Your task to perform on an android device: What time is it in Berlin? Image 0: 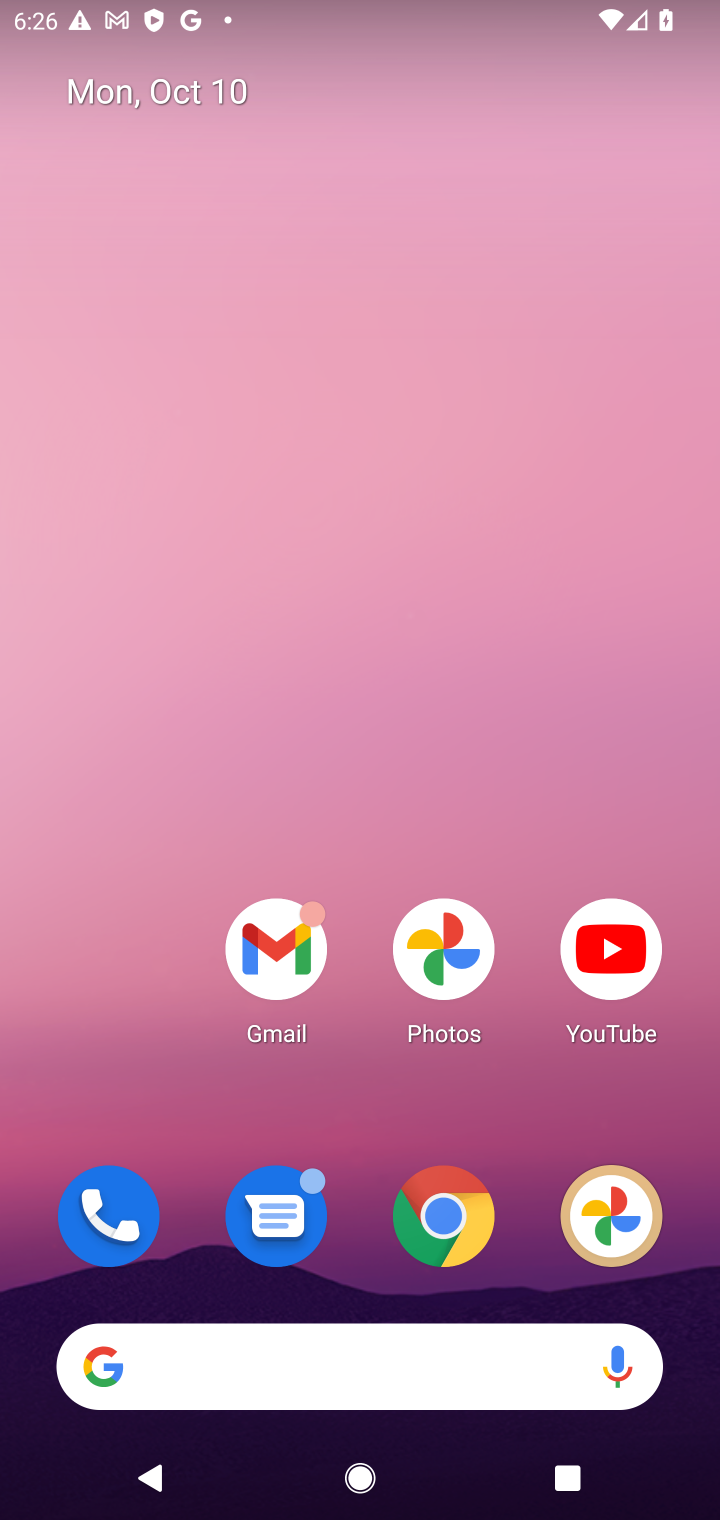
Step 0: press home button
Your task to perform on an android device: What time is it in Berlin? Image 1: 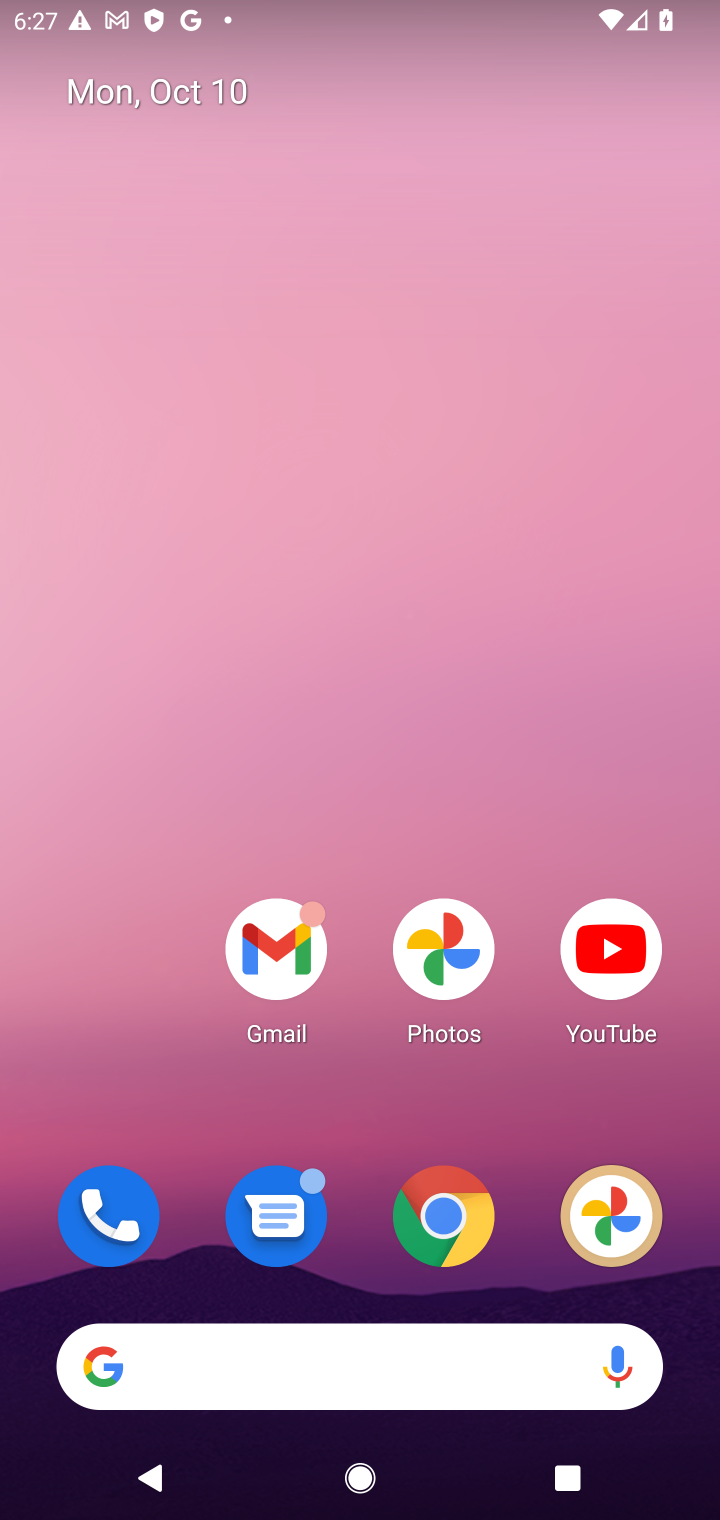
Step 1: drag from (369, 1358) to (366, 291)
Your task to perform on an android device: What time is it in Berlin? Image 2: 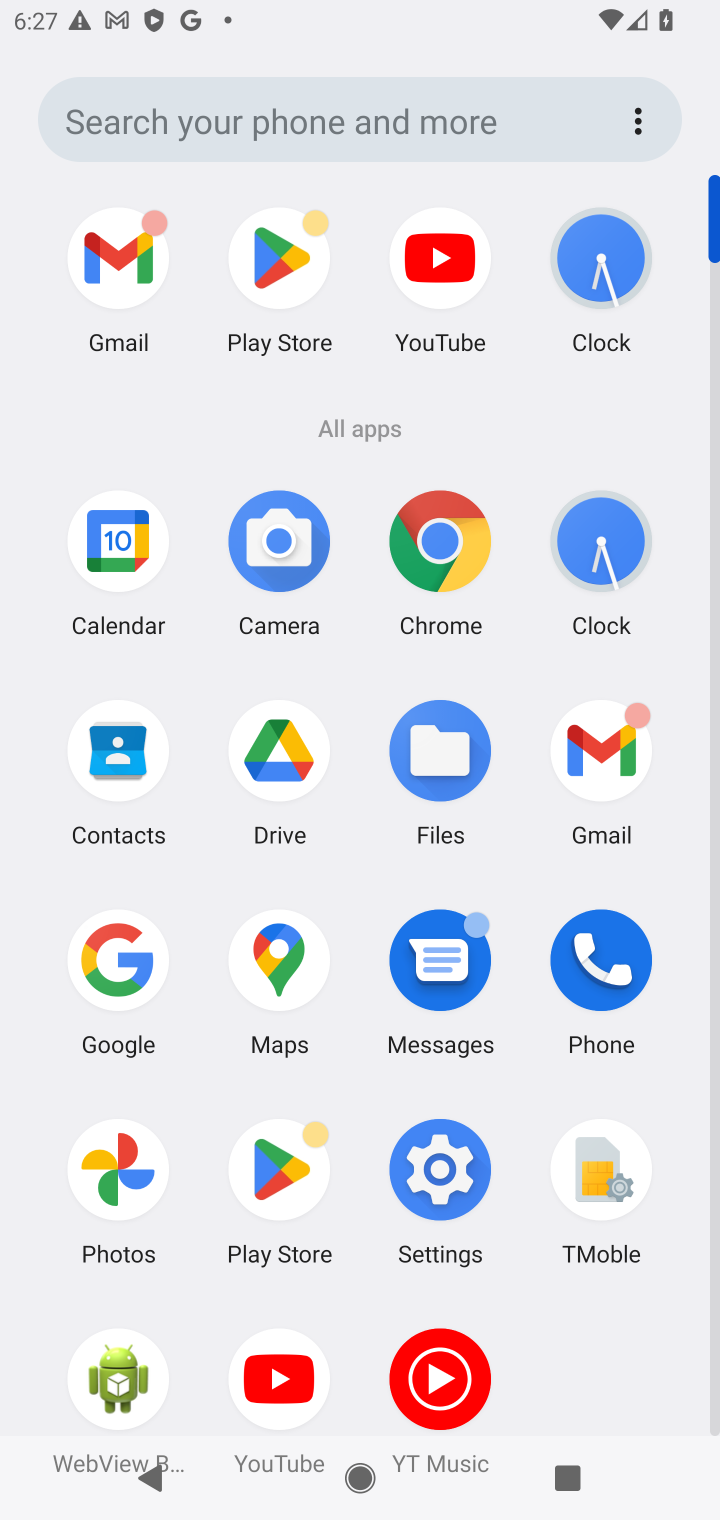
Step 2: click (107, 957)
Your task to perform on an android device: What time is it in Berlin? Image 3: 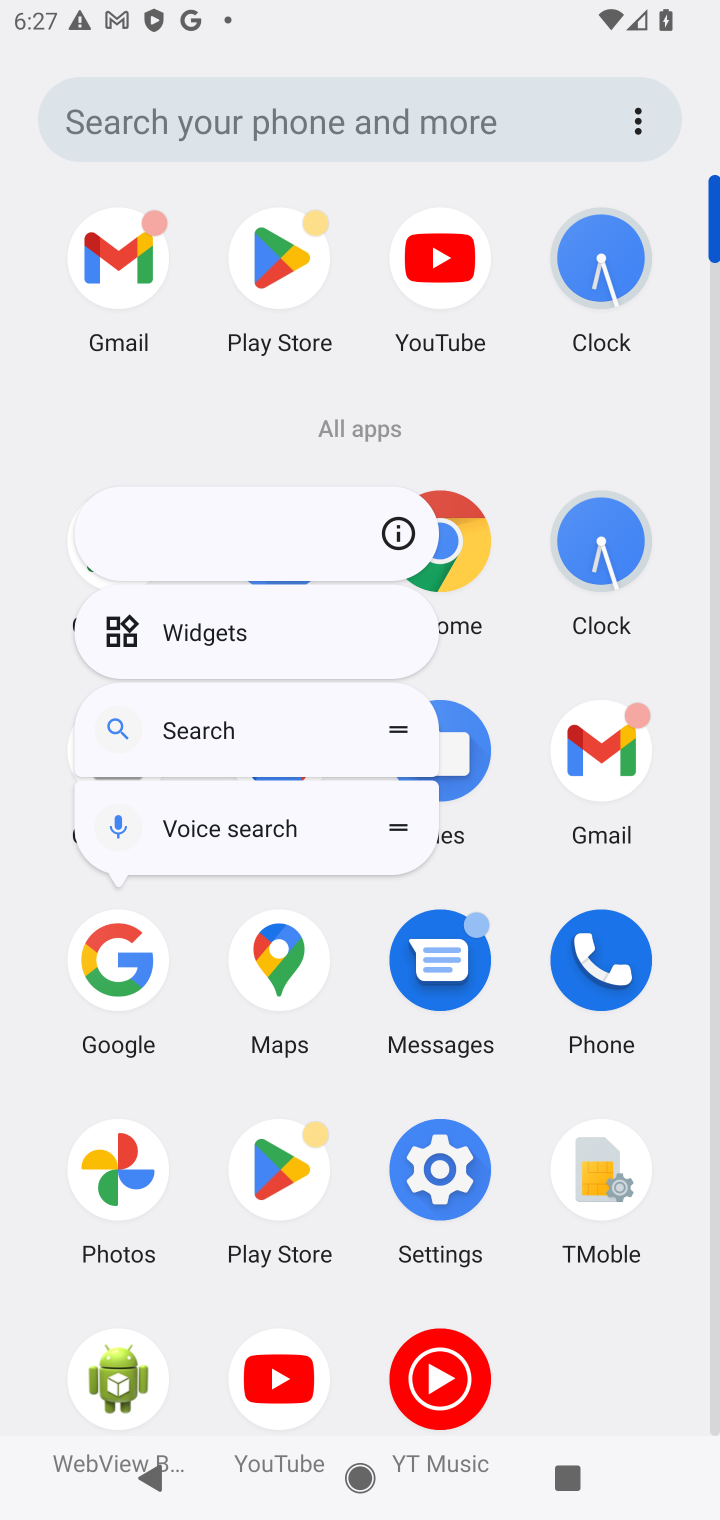
Step 3: click (132, 955)
Your task to perform on an android device: What time is it in Berlin? Image 4: 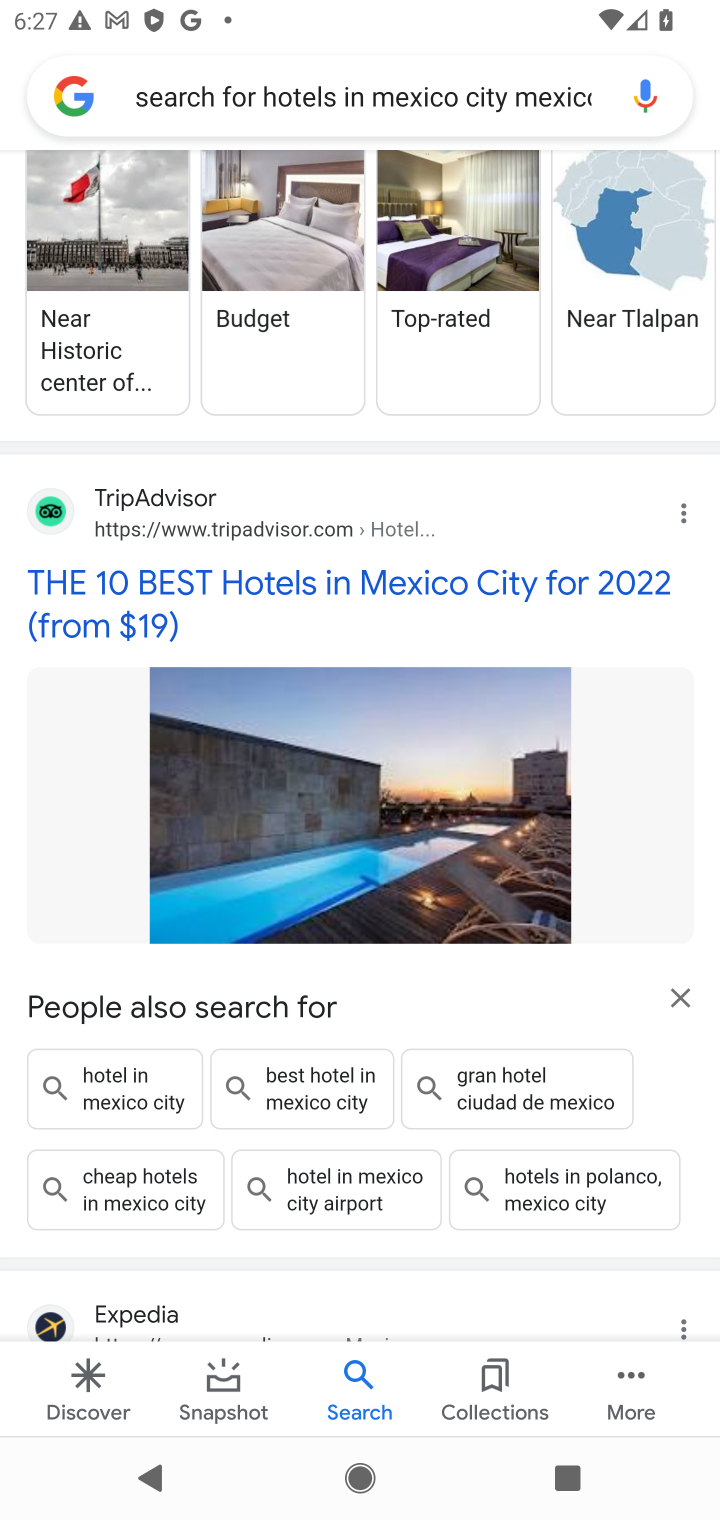
Step 4: click (519, 94)
Your task to perform on an android device: What time is it in Berlin? Image 5: 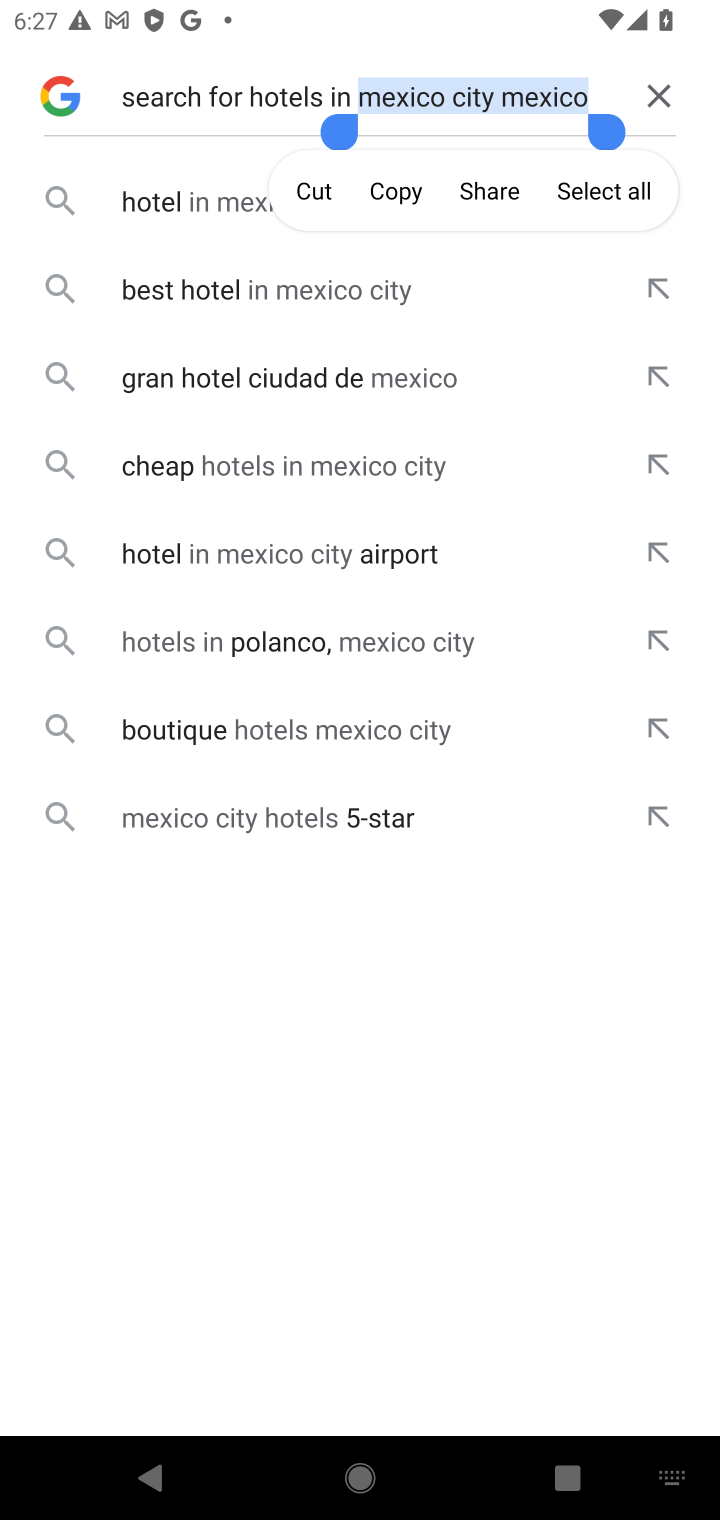
Step 5: click (670, 91)
Your task to perform on an android device: What time is it in Berlin? Image 6: 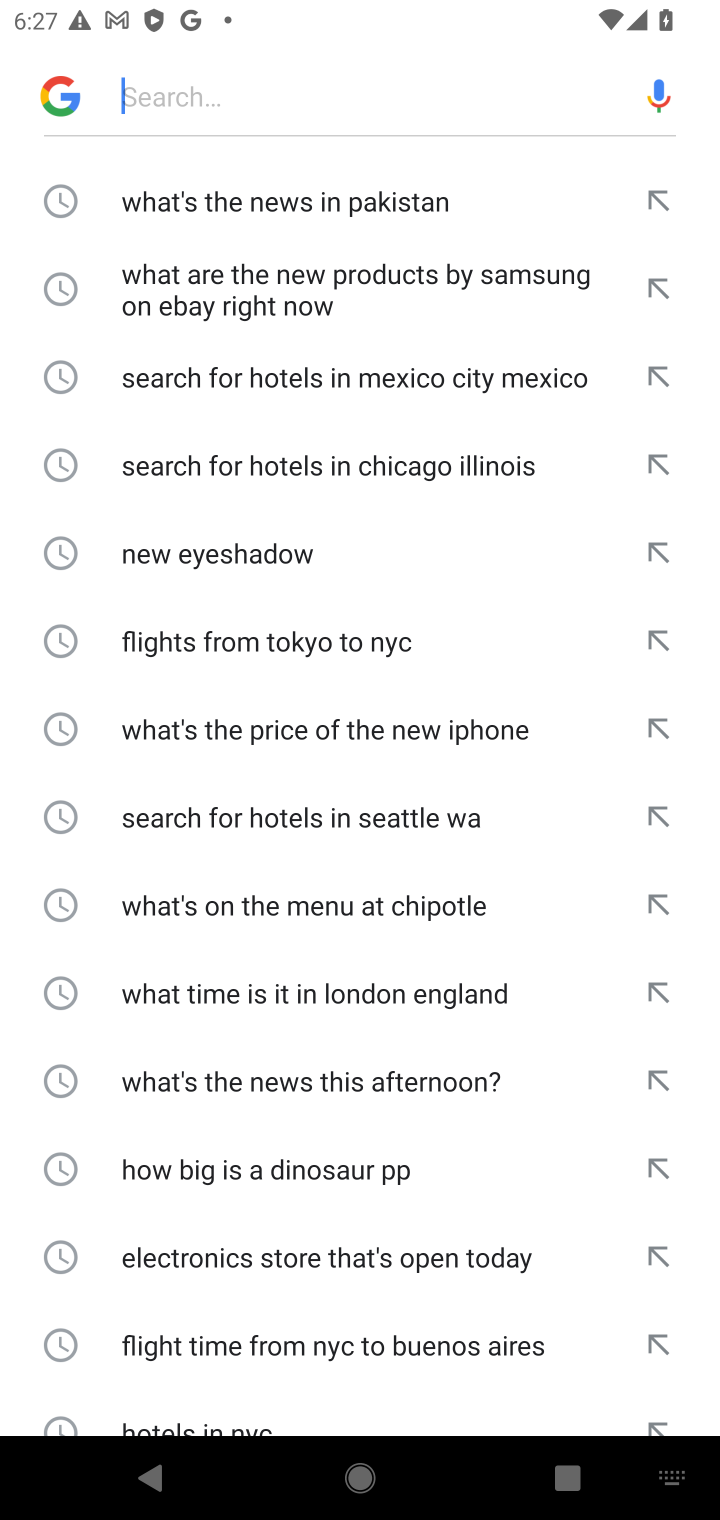
Step 6: type "What time is it in Berlin?"
Your task to perform on an android device: What time is it in Berlin? Image 7: 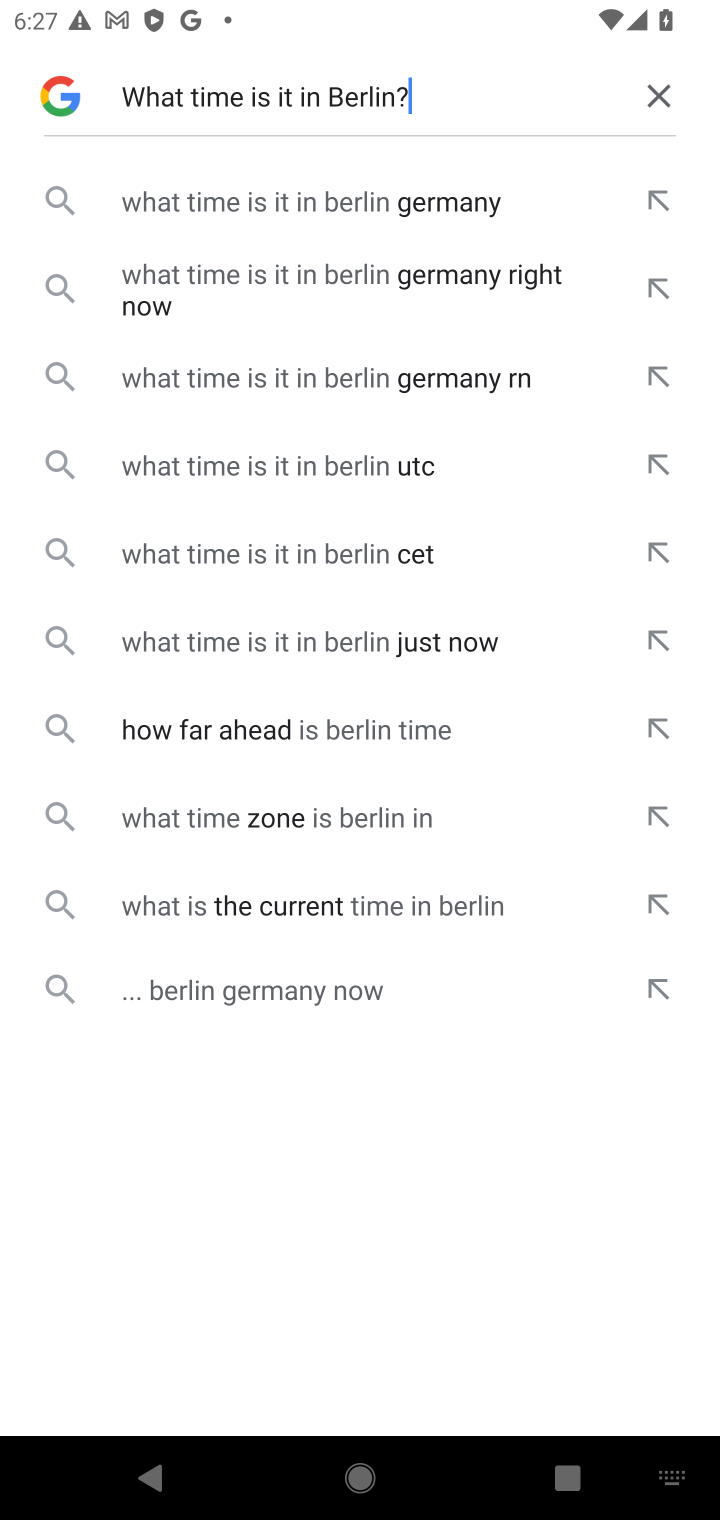
Step 7: click (355, 191)
Your task to perform on an android device: What time is it in Berlin? Image 8: 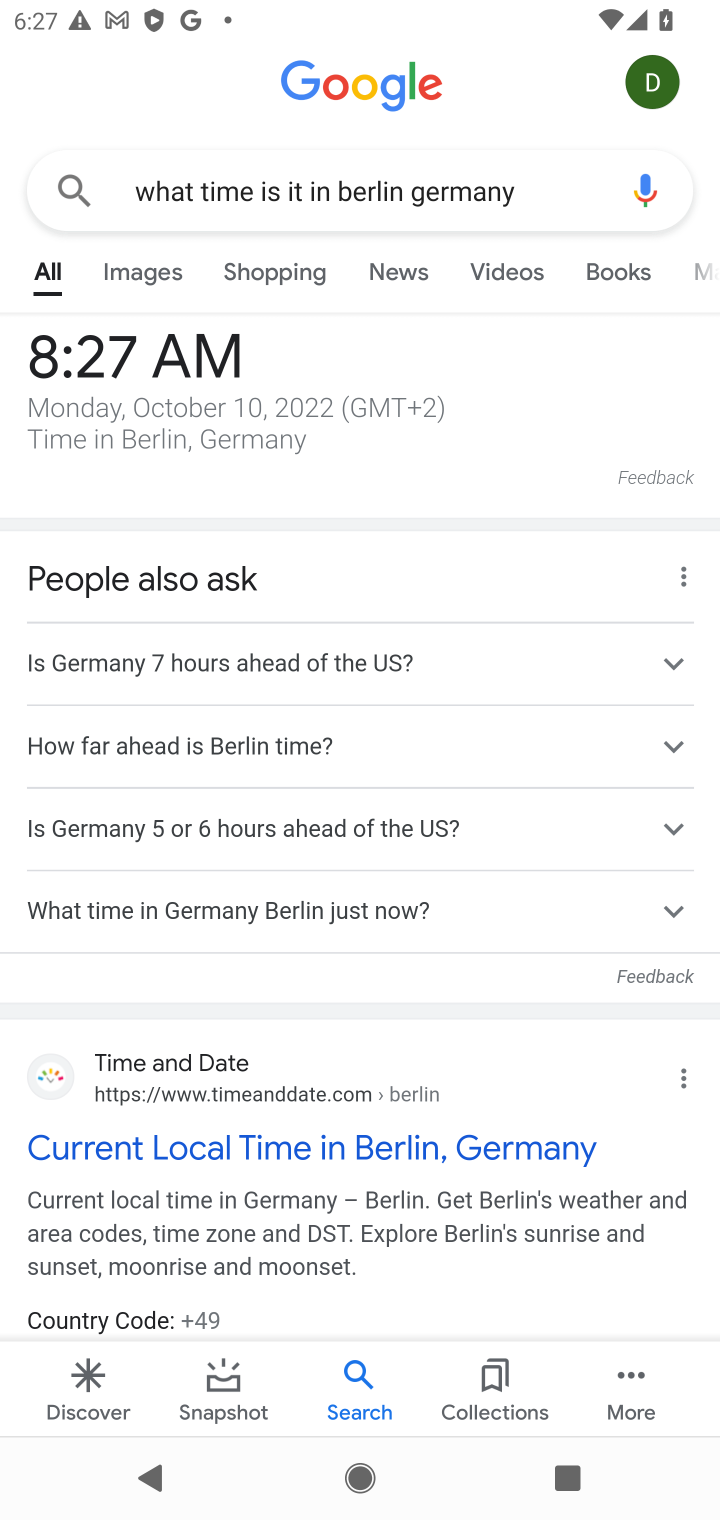
Step 8: task complete